Your task to perform on an android device: turn on translation in the chrome app Image 0: 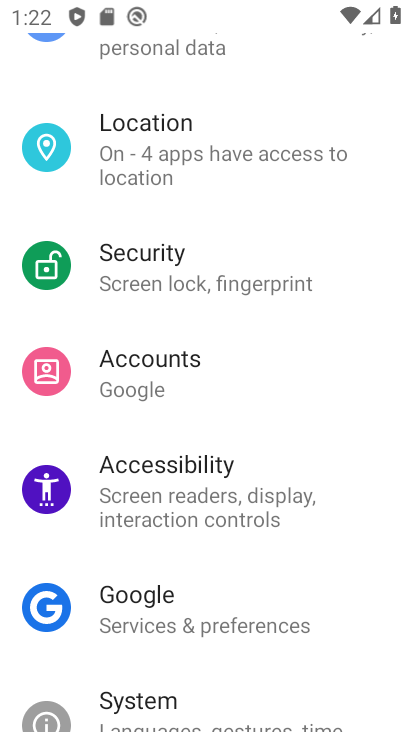
Step 0: press home button
Your task to perform on an android device: turn on translation in the chrome app Image 1: 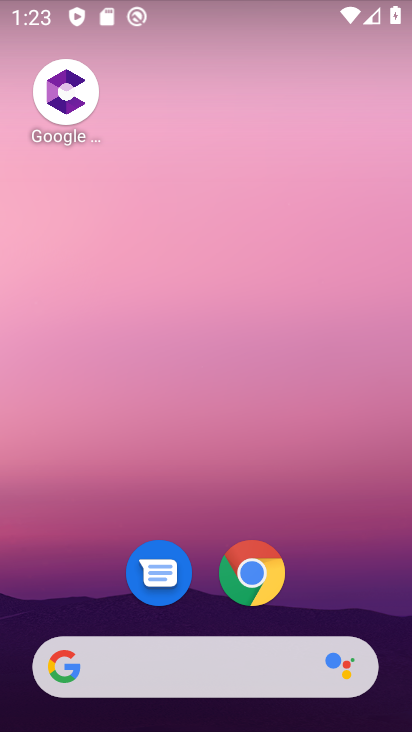
Step 1: click (263, 589)
Your task to perform on an android device: turn on translation in the chrome app Image 2: 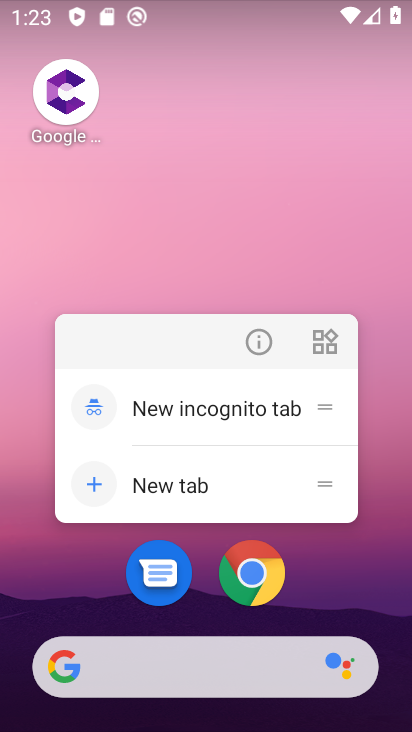
Step 2: click (256, 571)
Your task to perform on an android device: turn on translation in the chrome app Image 3: 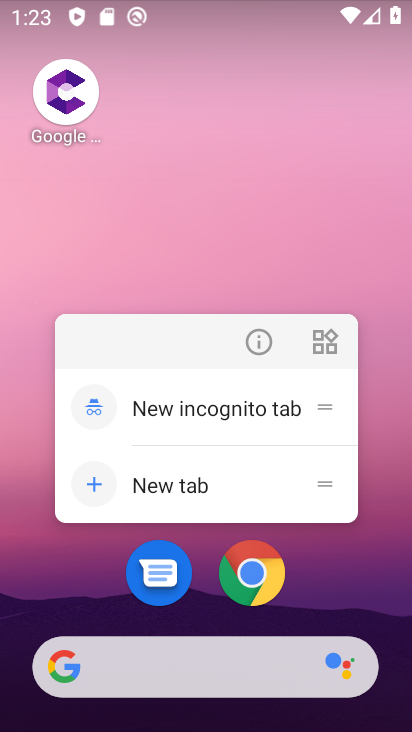
Step 3: click (259, 575)
Your task to perform on an android device: turn on translation in the chrome app Image 4: 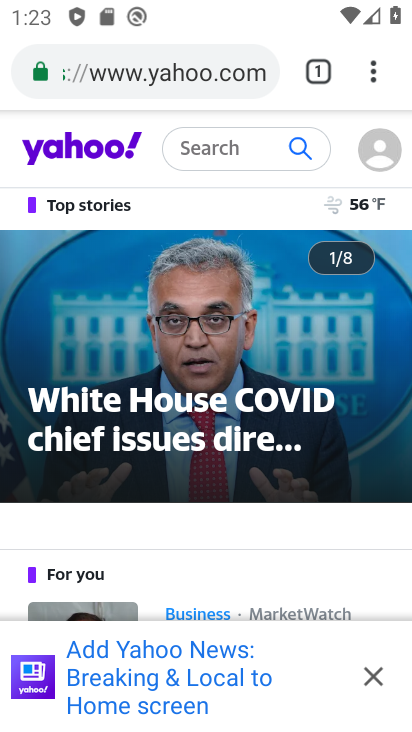
Step 4: click (374, 673)
Your task to perform on an android device: turn on translation in the chrome app Image 5: 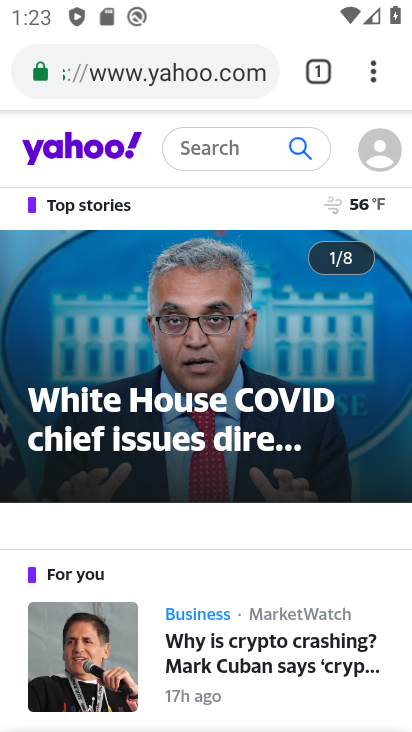
Step 5: click (373, 68)
Your task to perform on an android device: turn on translation in the chrome app Image 6: 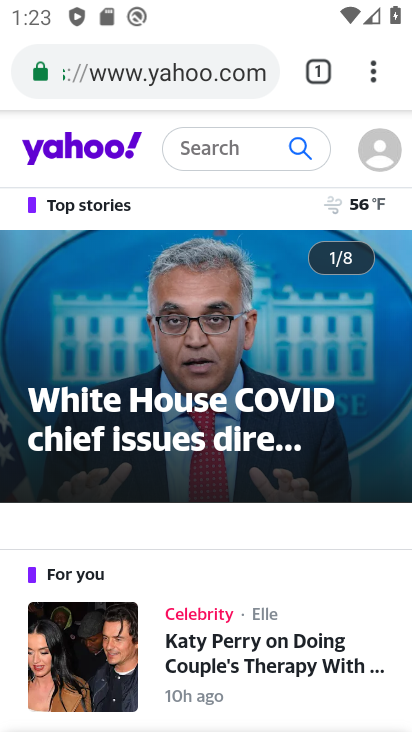
Step 6: click (374, 76)
Your task to perform on an android device: turn on translation in the chrome app Image 7: 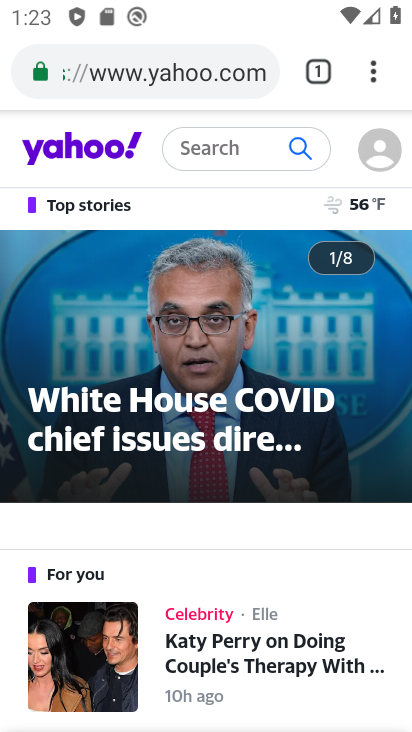
Step 7: click (374, 74)
Your task to perform on an android device: turn on translation in the chrome app Image 8: 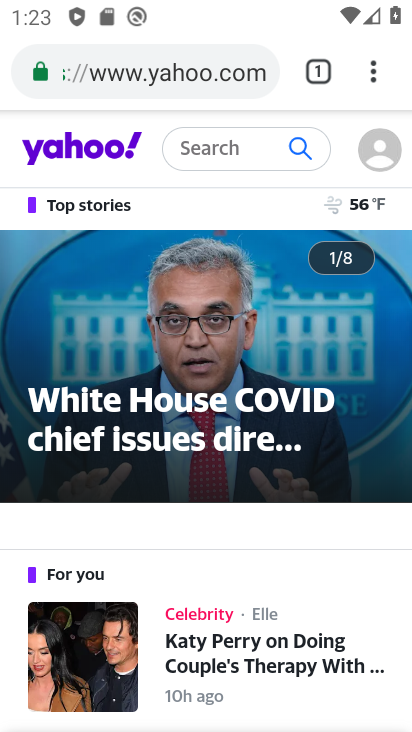
Step 8: click (377, 73)
Your task to perform on an android device: turn on translation in the chrome app Image 9: 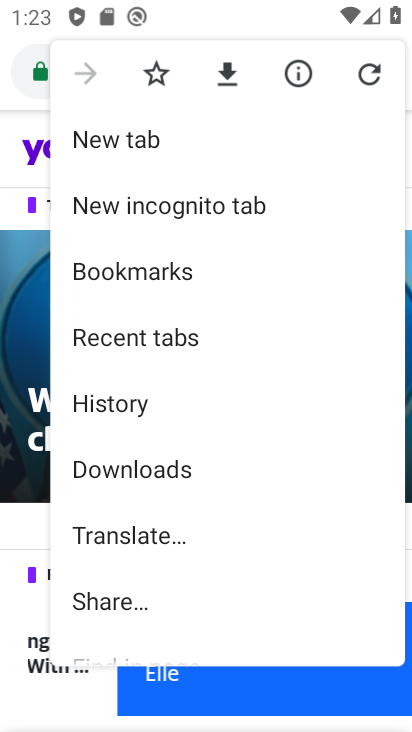
Step 9: drag from (147, 562) to (153, 266)
Your task to perform on an android device: turn on translation in the chrome app Image 10: 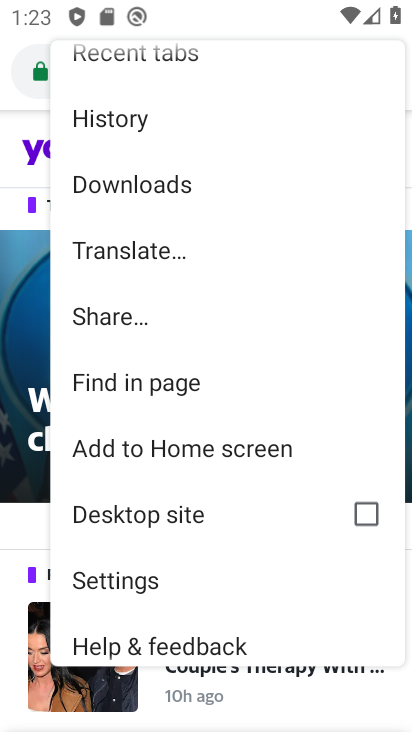
Step 10: click (116, 588)
Your task to perform on an android device: turn on translation in the chrome app Image 11: 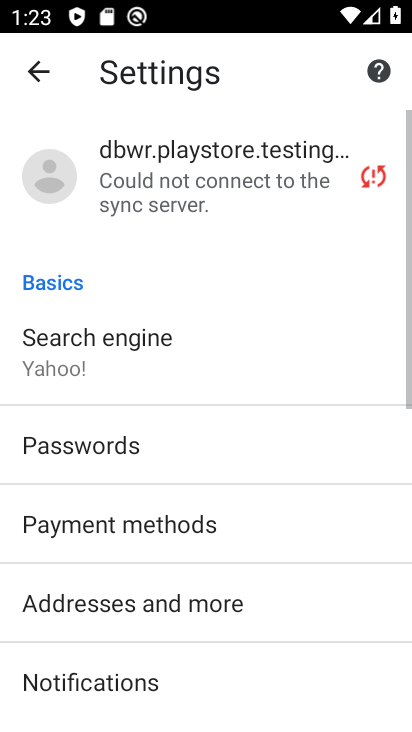
Step 11: drag from (127, 639) to (172, 354)
Your task to perform on an android device: turn on translation in the chrome app Image 12: 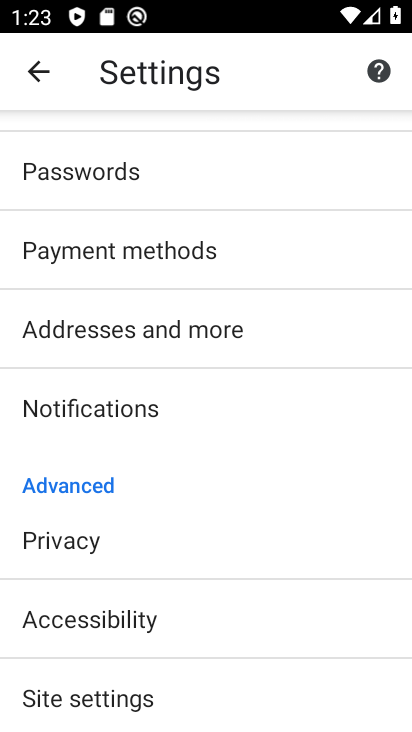
Step 12: drag from (86, 660) to (169, 335)
Your task to perform on an android device: turn on translation in the chrome app Image 13: 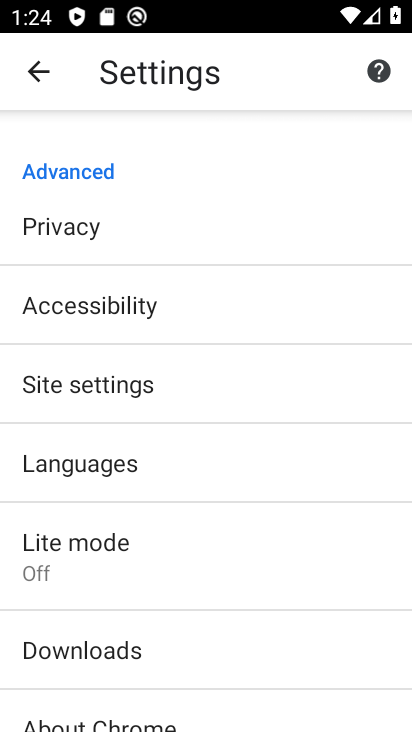
Step 13: click (98, 484)
Your task to perform on an android device: turn on translation in the chrome app Image 14: 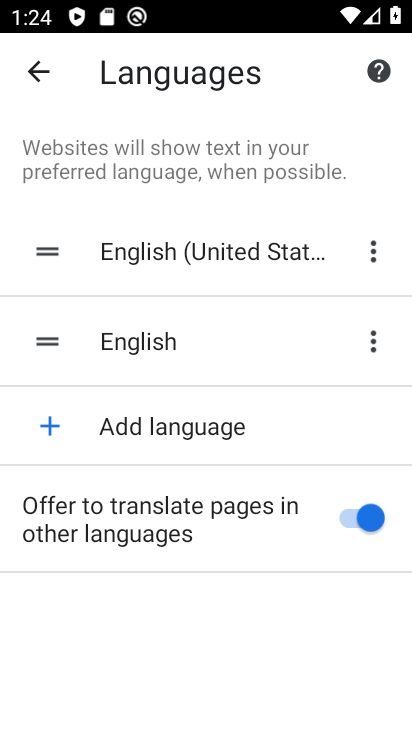
Step 14: task complete